Your task to perform on an android device: Open Google Chrome and click the shortcut for Amazon.com Image 0: 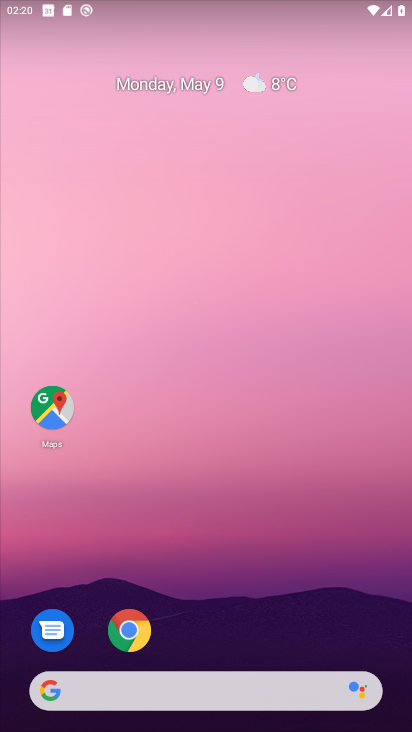
Step 0: drag from (275, 620) to (303, 64)
Your task to perform on an android device: Open Google Chrome and click the shortcut for Amazon.com Image 1: 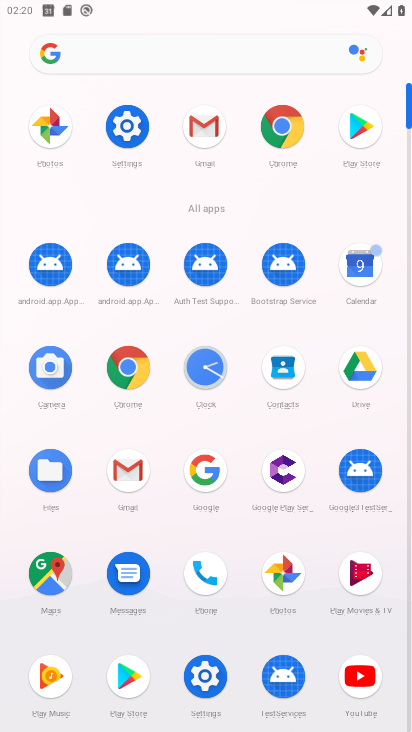
Step 1: click (269, 130)
Your task to perform on an android device: Open Google Chrome and click the shortcut for Amazon.com Image 2: 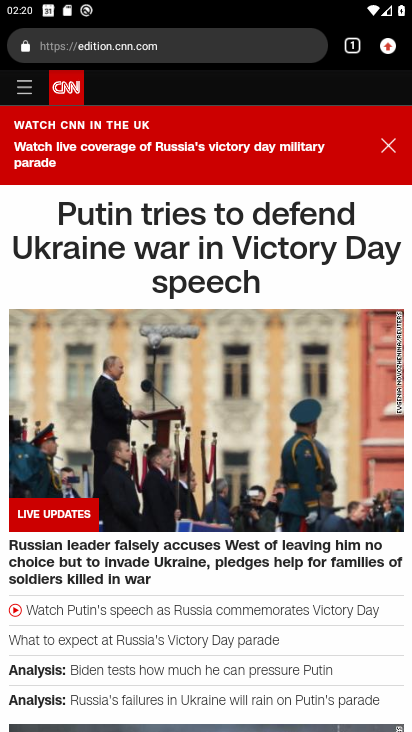
Step 2: click (389, 52)
Your task to perform on an android device: Open Google Chrome and click the shortcut for Amazon.com Image 3: 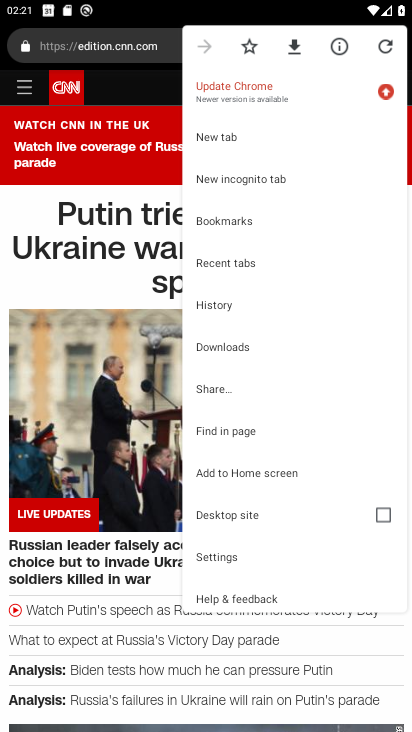
Step 3: click (254, 139)
Your task to perform on an android device: Open Google Chrome and click the shortcut for Amazon.com Image 4: 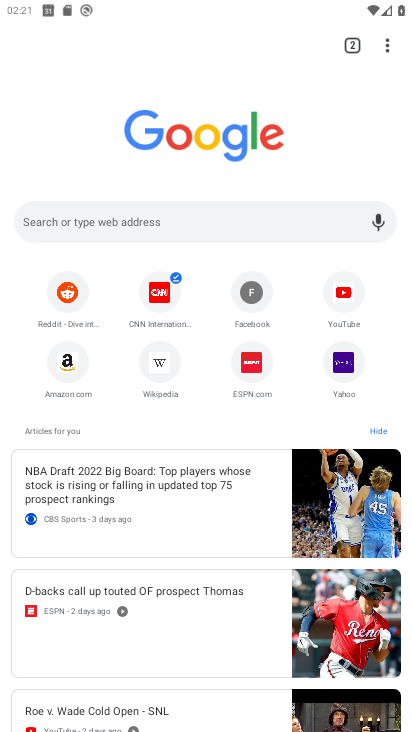
Step 4: click (70, 360)
Your task to perform on an android device: Open Google Chrome and click the shortcut for Amazon.com Image 5: 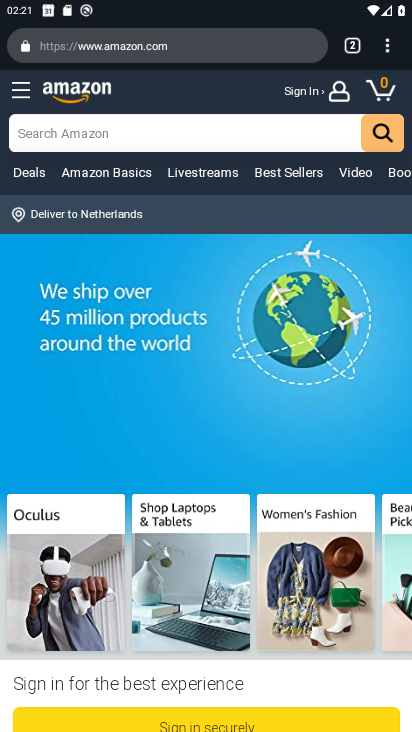
Step 5: task complete